Your task to perform on an android device: toggle pop-ups in chrome Image 0: 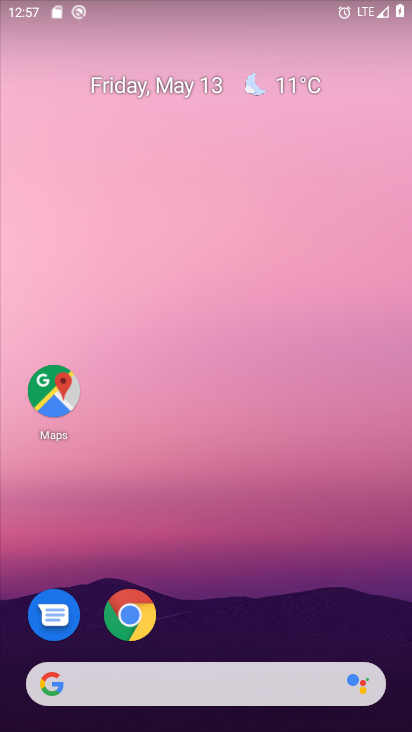
Step 0: click (129, 620)
Your task to perform on an android device: toggle pop-ups in chrome Image 1: 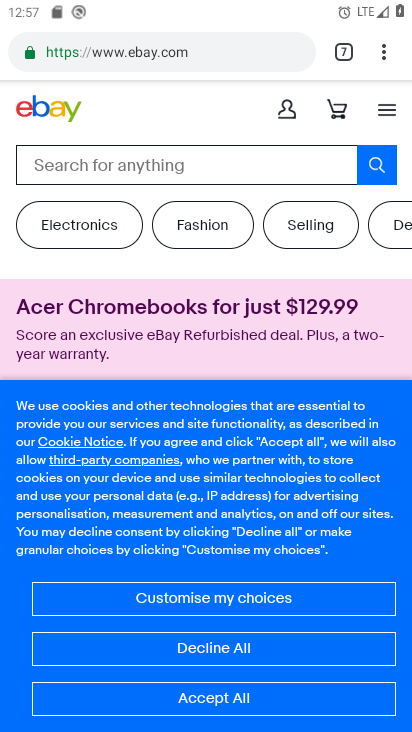
Step 1: click (383, 48)
Your task to perform on an android device: toggle pop-ups in chrome Image 2: 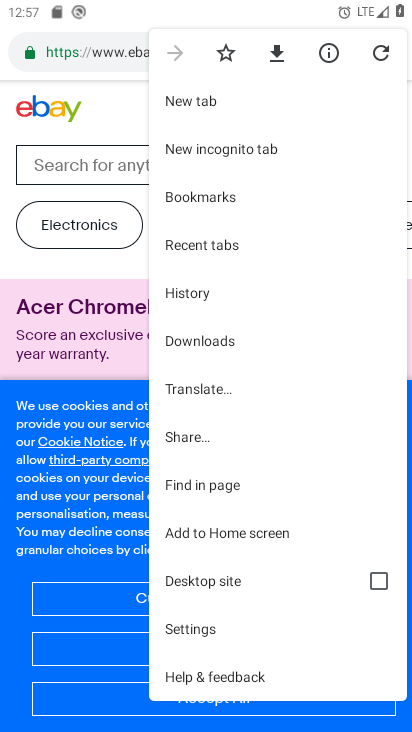
Step 2: click (240, 629)
Your task to perform on an android device: toggle pop-ups in chrome Image 3: 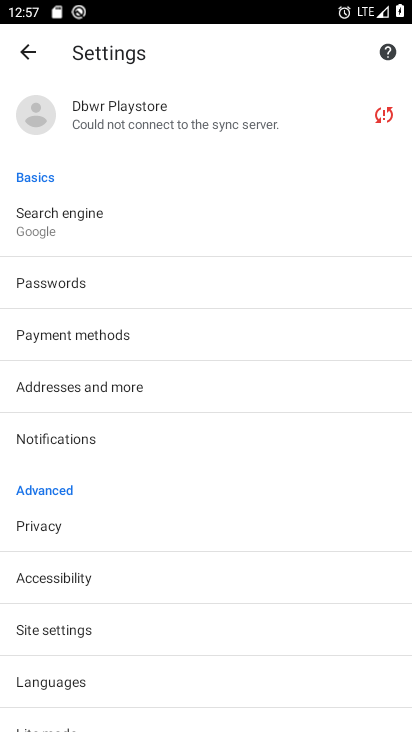
Step 3: click (240, 629)
Your task to perform on an android device: toggle pop-ups in chrome Image 4: 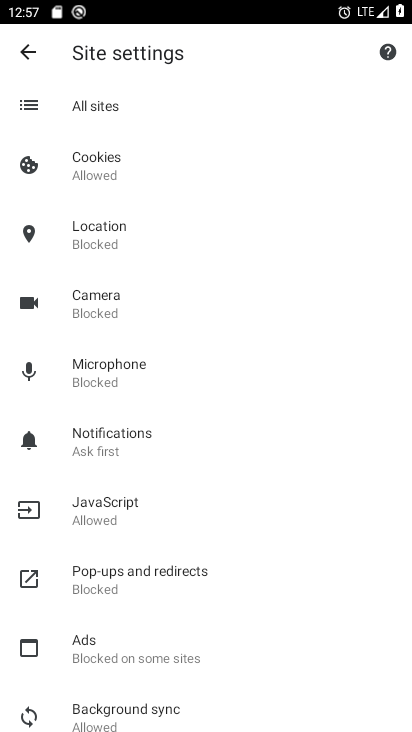
Step 4: click (251, 575)
Your task to perform on an android device: toggle pop-ups in chrome Image 5: 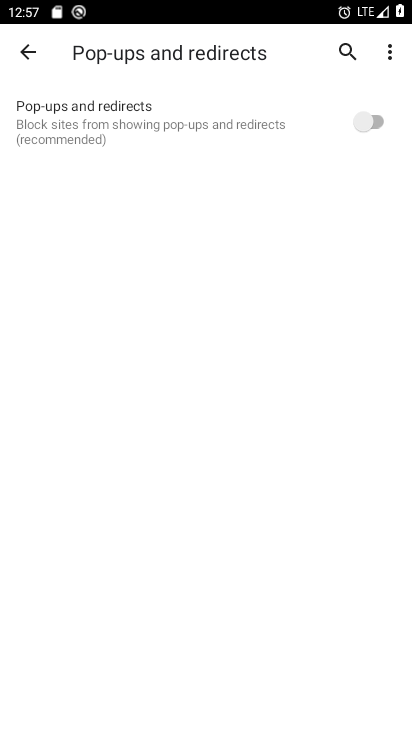
Step 5: click (363, 113)
Your task to perform on an android device: toggle pop-ups in chrome Image 6: 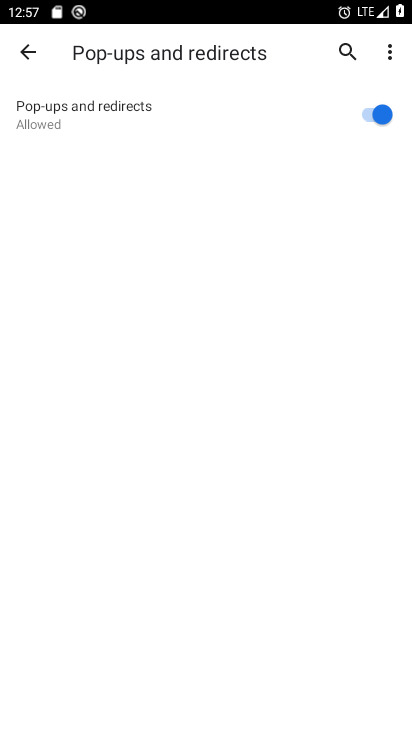
Step 6: task complete